Your task to perform on an android device: empty trash in google photos Image 0: 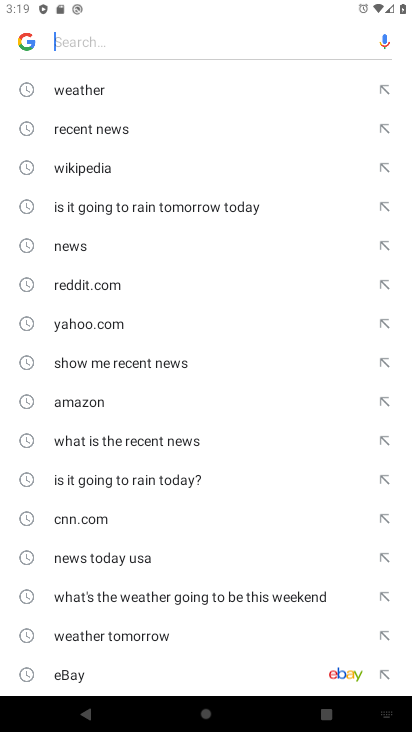
Step 0: press home button
Your task to perform on an android device: empty trash in google photos Image 1: 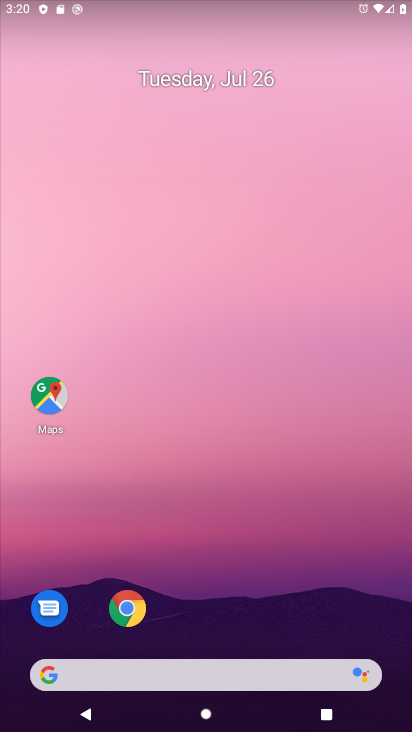
Step 1: drag from (388, 689) to (332, 144)
Your task to perform on an android device: empty trash in google photos Image 2: 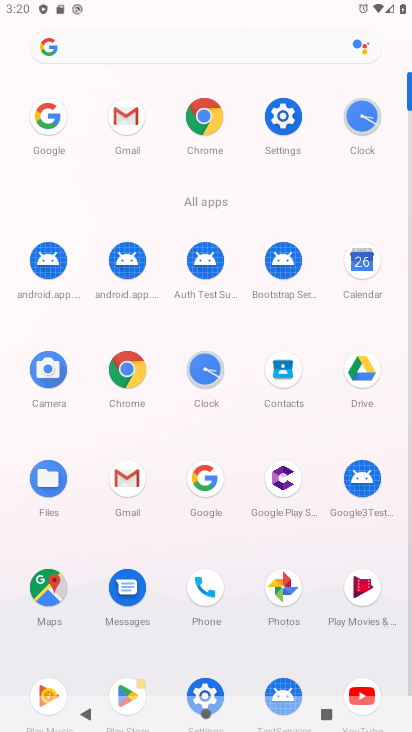
Step 2: click (286, 590)
Your task to perform on an android device: empty trash in google photos Image 3: 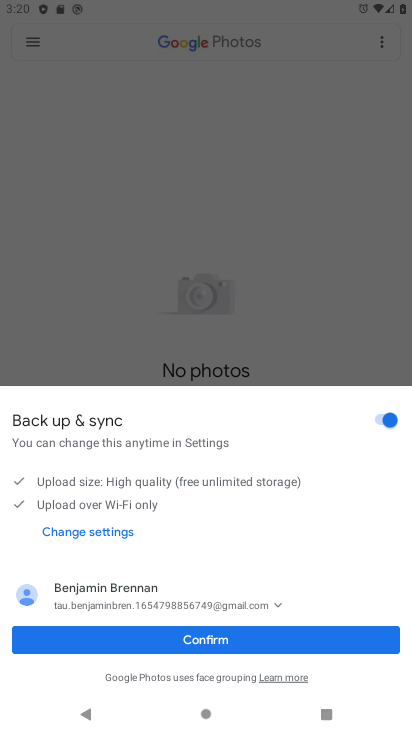
Step 3: click (261, 640)
Your task to perform on an android device: empty trash in google photos Image 4: 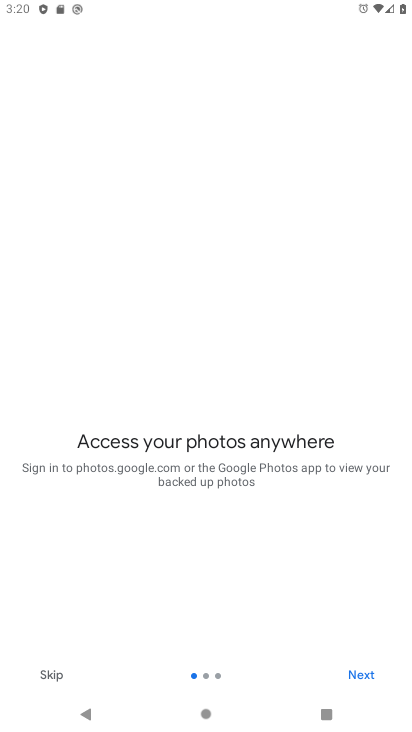
Step 4: click (363, 671)
Your task to perform on an android device: empty trash in google photos Image 5: 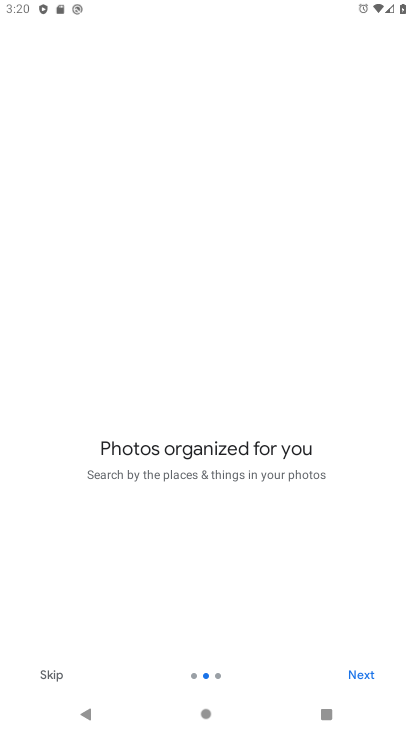
Step 5: click (363, 671)
Your task to perform on an android device: empty trash in google photos Image 6: 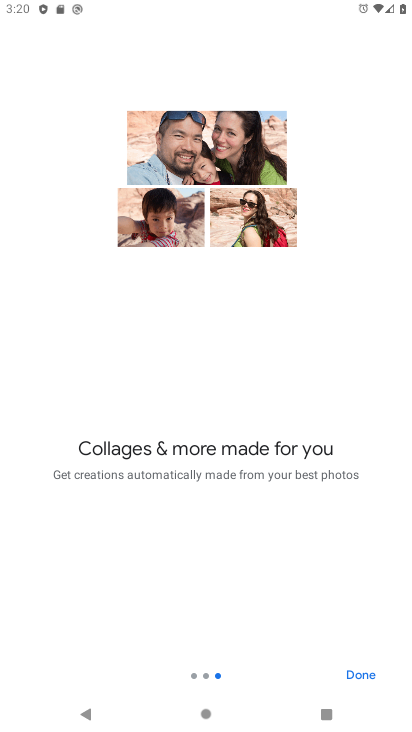
Step 6: click (362, 677)
Your task to perform on an android device: empty trash in google photos Image 7: 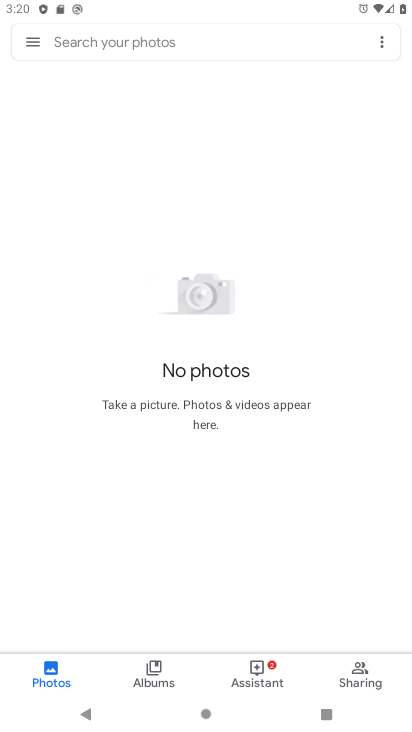
Step 7: click (28, 36)
Your task to perform on an android device: empty trash in google photos Image 8: 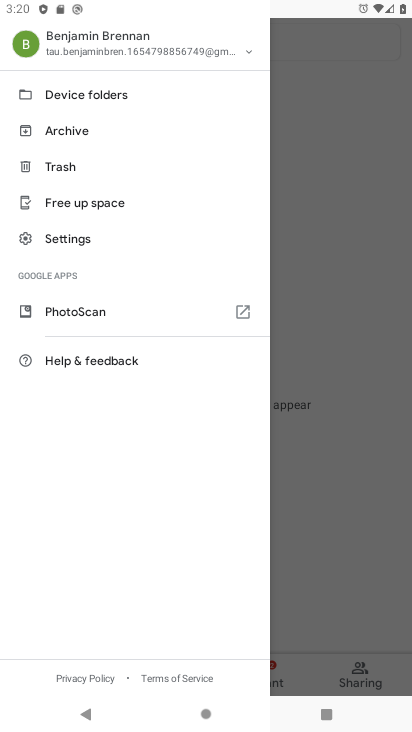
Step 8: click (61, 169)
Your task to perform on an android device: empty trash in google photos Image 9: 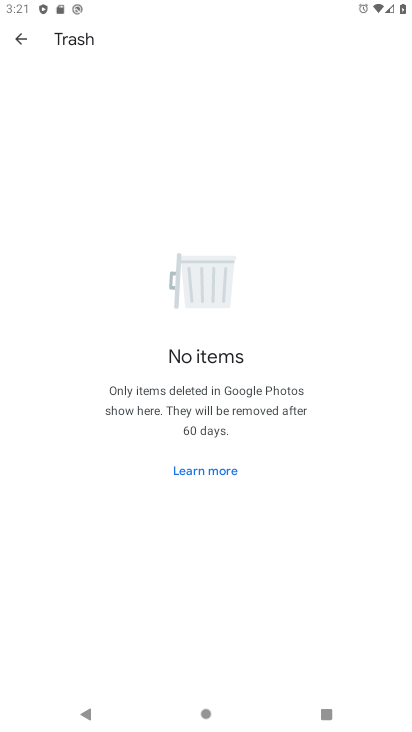
Step 9: task complete